Your task to perform on an android device: toggle improve location accuracy Image 0: 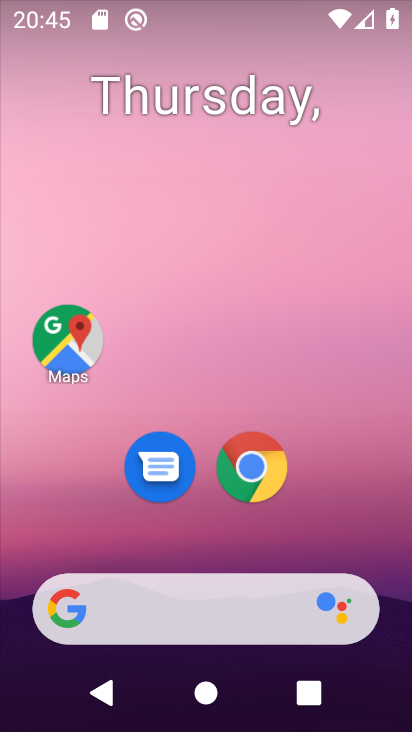
Step 0: drag from (301, 543) to (352, 253)
Your task to perform on an android device: toggle improve location accuracy Image 1: 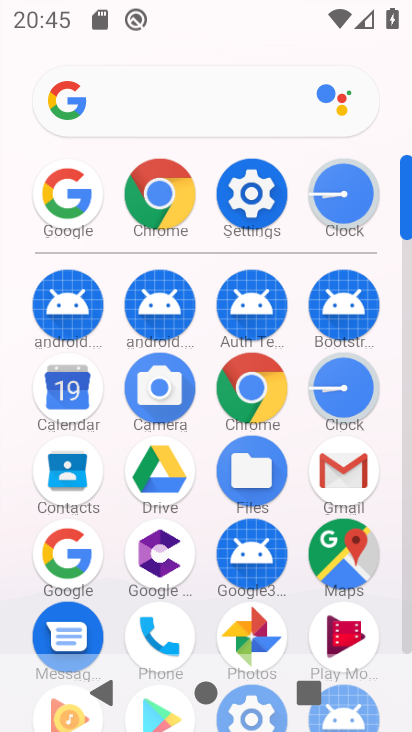
Step 1: click (251, 203)
Your task to perform on an android device: toggle improve location accuracy Image 2: 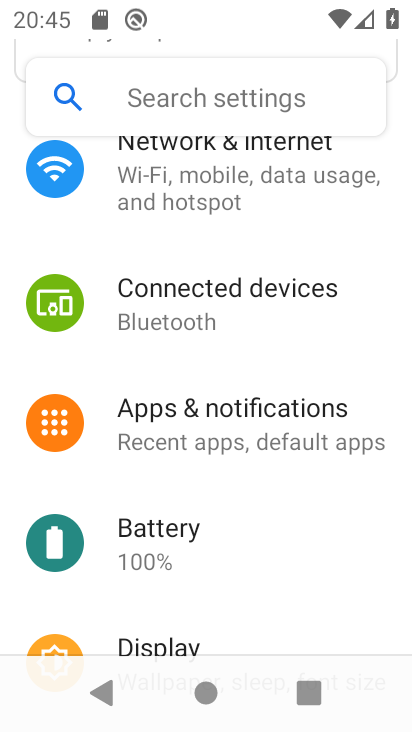
Step 2: drag from (213, 592) to (322, 249)
Your task to perform on an android device: toggle improve location accuracy Image 3: 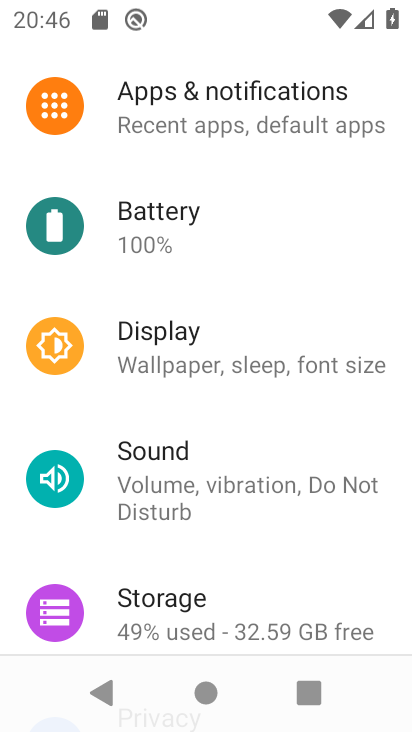
Step 3: drag from (227, 602) to (304, 219)
Your task to perform on an android device: toggle improve location accuracy Image 4: 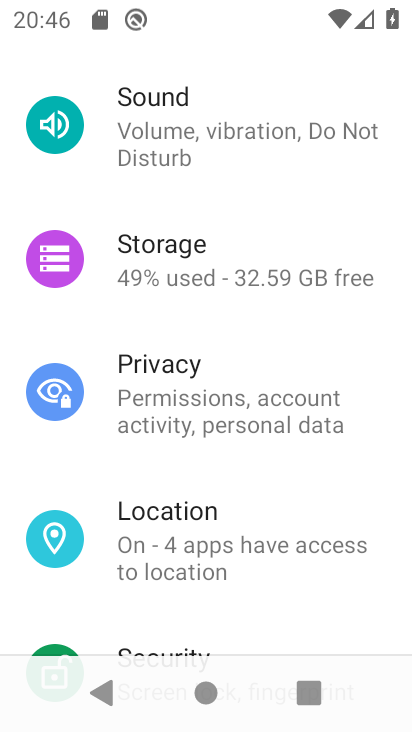
Step 4: drag from (250, 577) to (285, 444)
Your task to perform on an android device: toggle improve location accuracy Image 5: 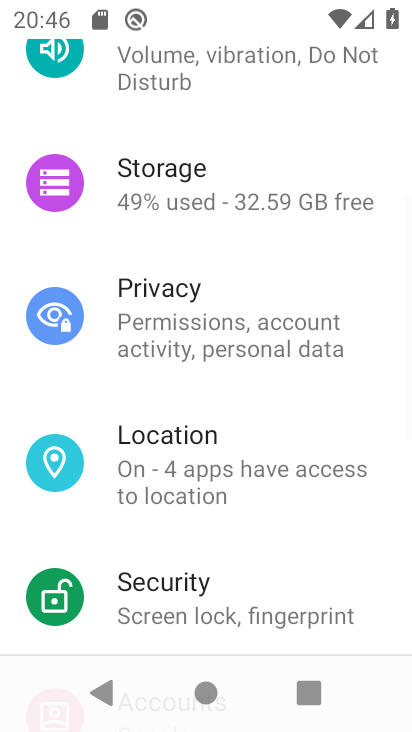
Step 5: click (255, 427)
Your task to perform on an android device: toggle improve location accuracy Image 6: 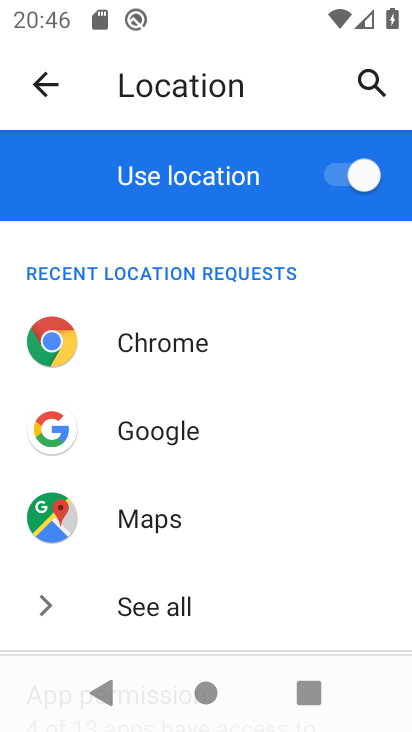
Step 6: drag from (284, 538) to (328, 204)
Your task to perform on an android device: toggle improve location accuracy Image 7: 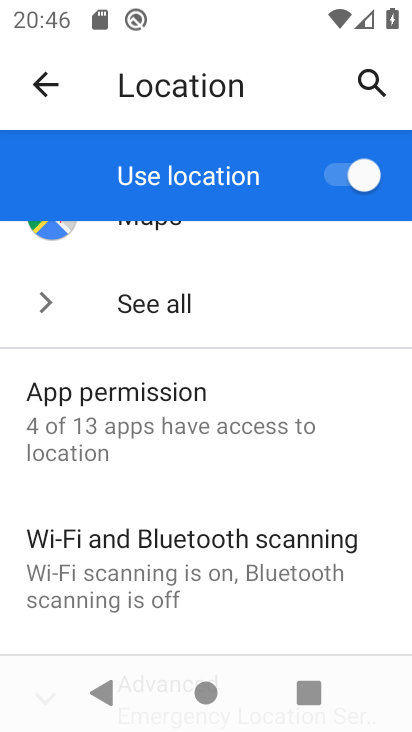
Step 7: drag from (155, 410) to (217, 213)
Your task to perform on an android device: toggle improve location accuracy Image 8: 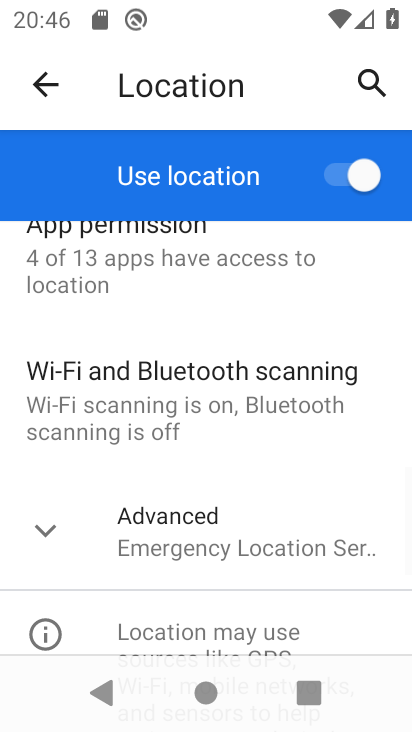
Step 8: click (229, 546)
Your task to perform on an android device: toggle improve location accuracy Image 9: 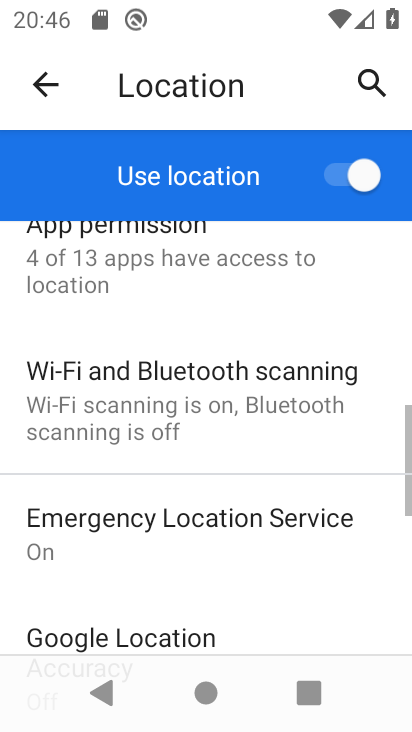
Step 9: drag from (277, 593) to (332, 354)
Your task to perform on an android device: toggle improve location accuracy Image 10: 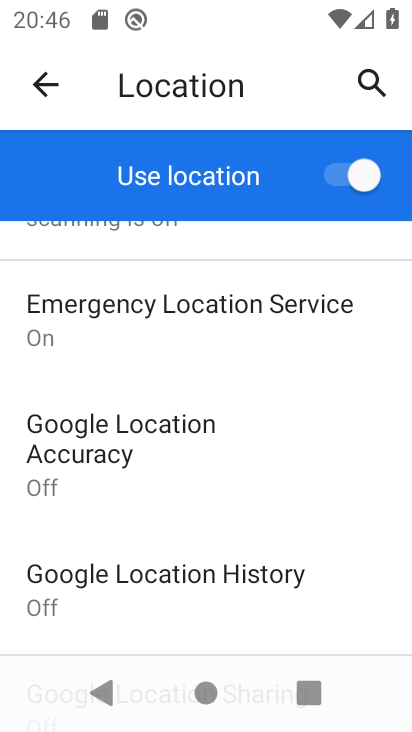
Step 10: click (170, 431)
Your task to perform on an android device: toggle improve location accuracy Image 11: 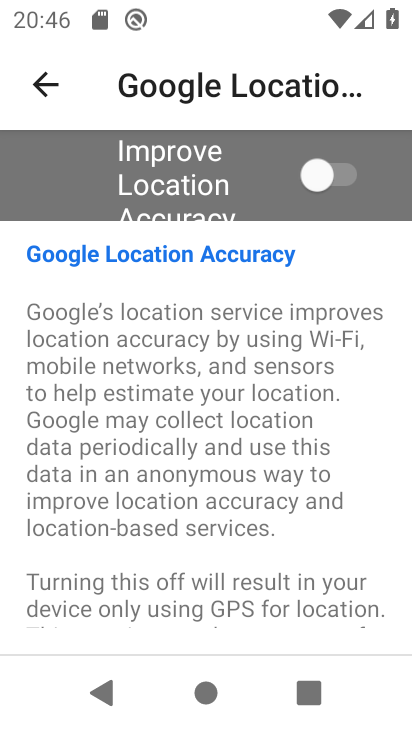
Step 11: click (345, 159)
Your task to perform on an android device: toggle improve location accuracy Image 12: 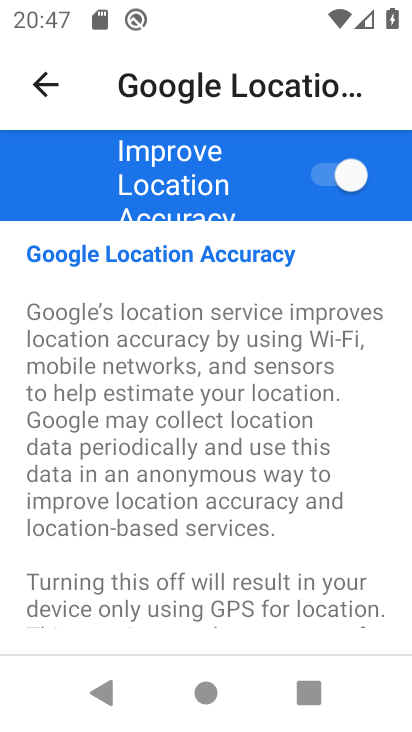
Step 12: task complete